Your task to perform on an android device: uninstall "Adobe Express: Graphic Design" Image 0: 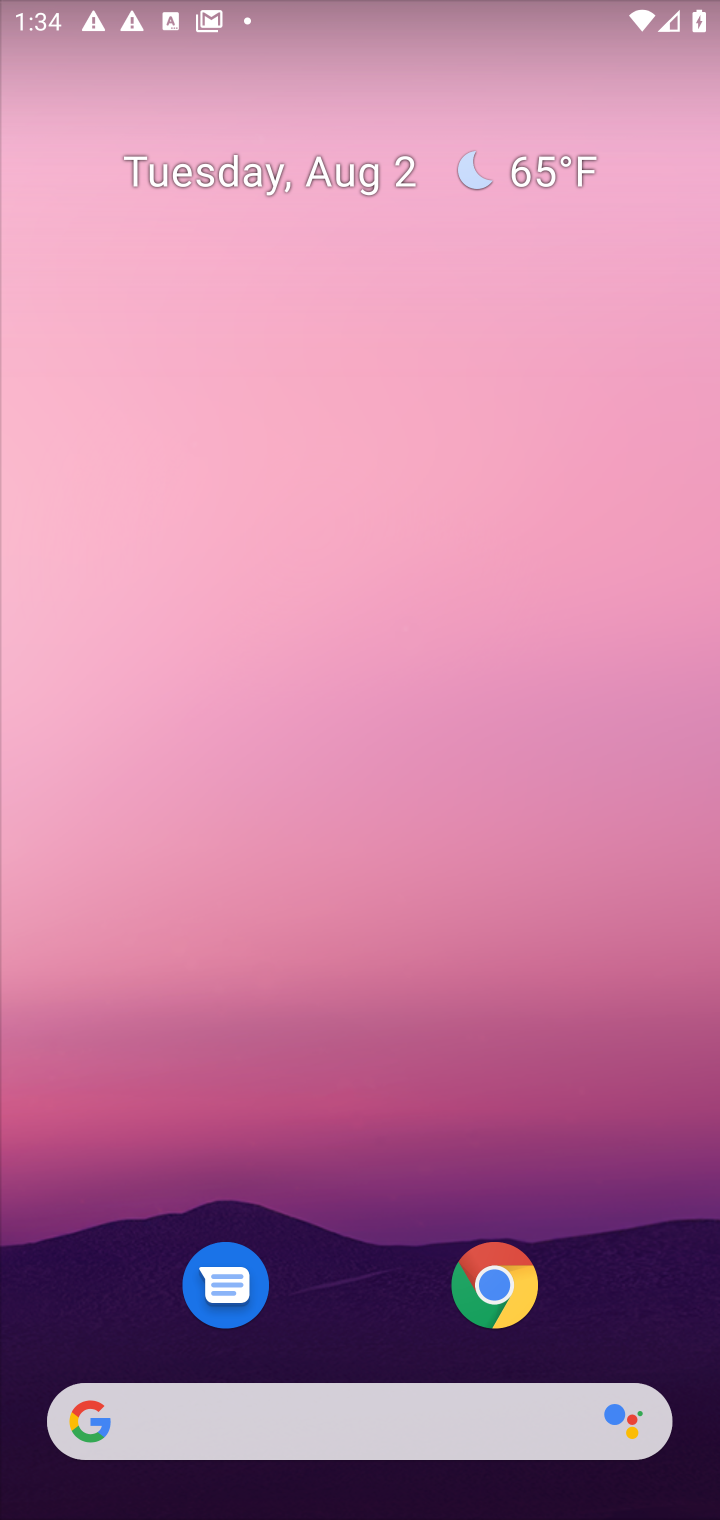
Step 0: drag from (670, 1168) to (687, 754)
Your task to perform on an android device: uninstall "Adobe Express: Graphic Design" Image 1: 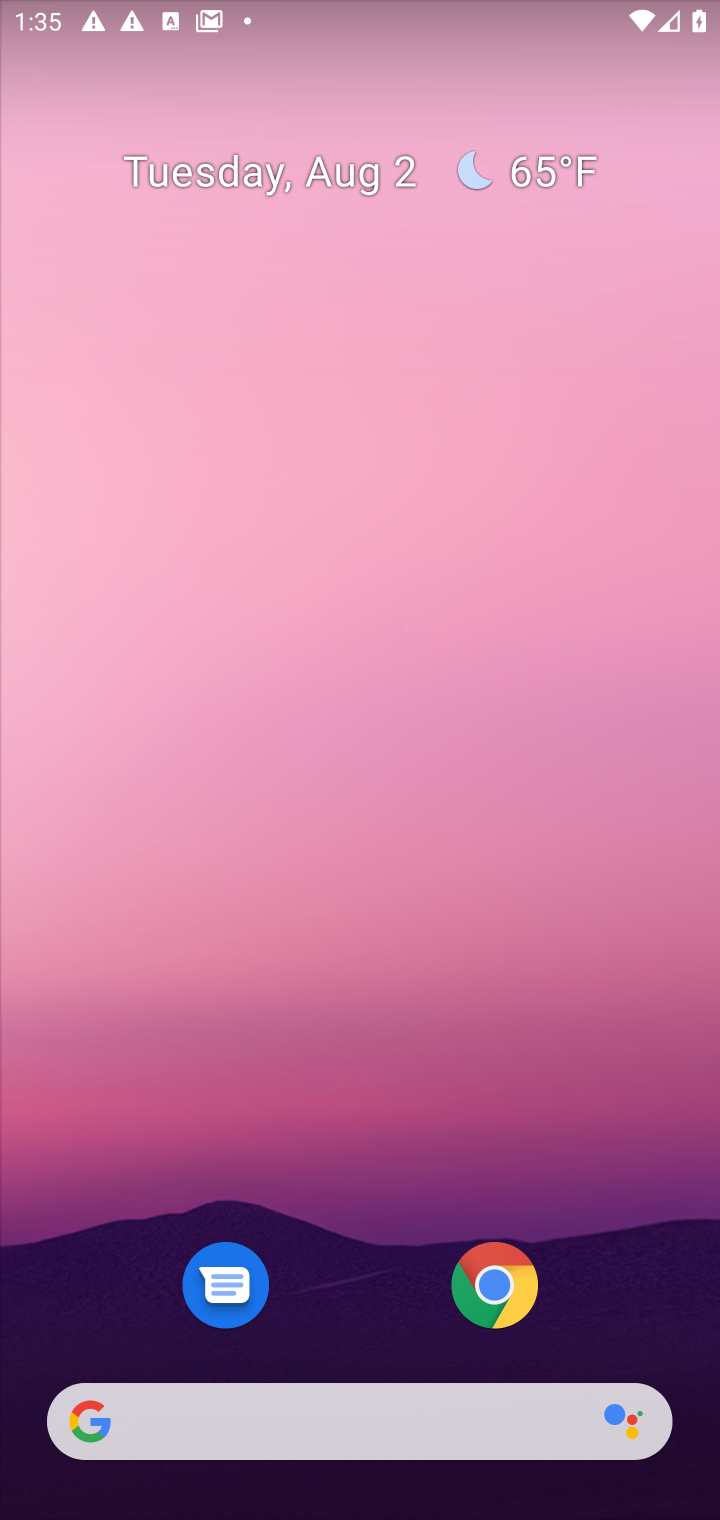
Step 1: drag from (650, 1108) to (709, 1)
Your task to perform on an android device: uninstall "Adobe Express: Graphic Design" Image 2: 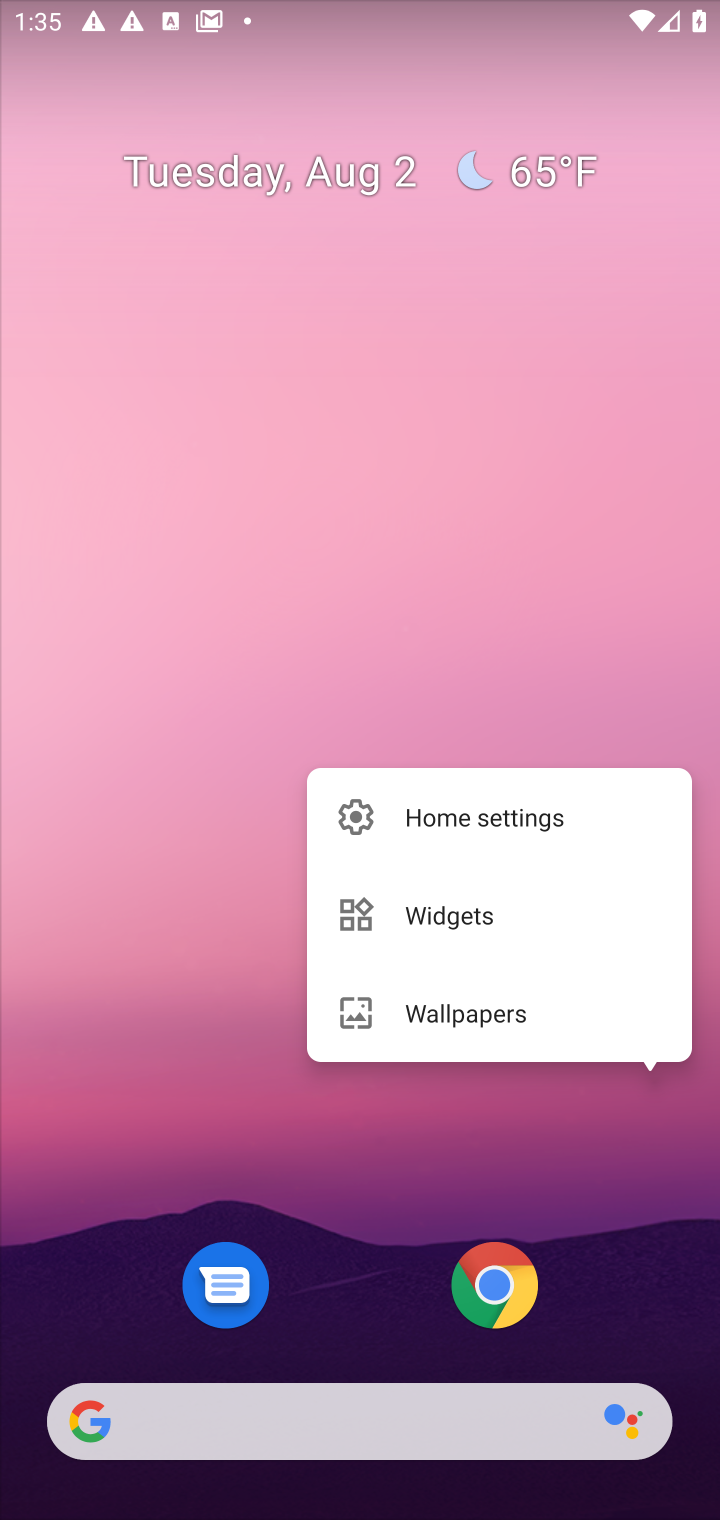
Step 2: click (277, 617)
Your task to perform on an android device: uninstall "Adobe Express: Graphic Design" Image 3: 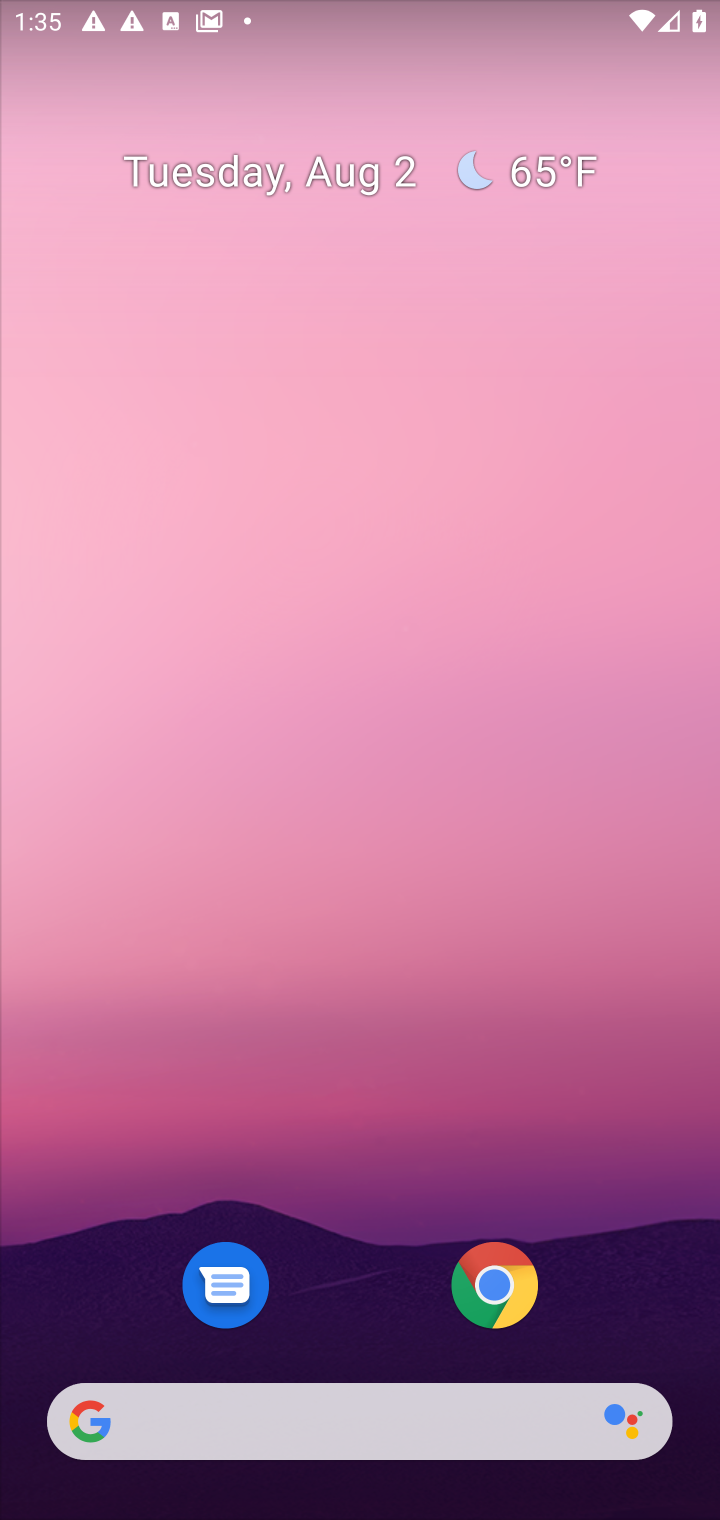
Step 3: drag from (605, 1222) to (477, 66)
Your task to perform on an android device: uninstall "Adobe Express: Graphic Design" Image 4: 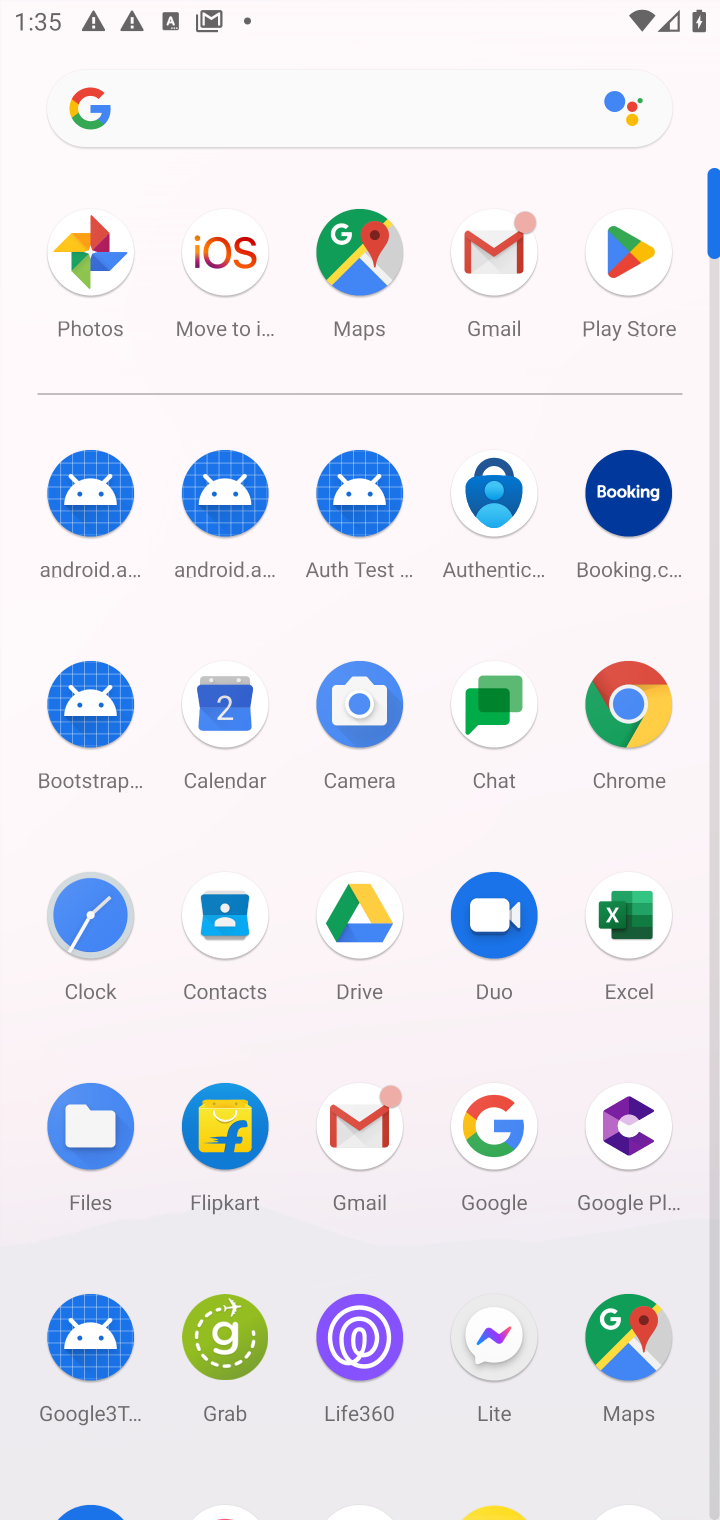
Step 4: drag from (434, 1217) to (441, 338)
Your task to perform on an android device: uninstall "Adobe Express: Graphic Design" Image 5: 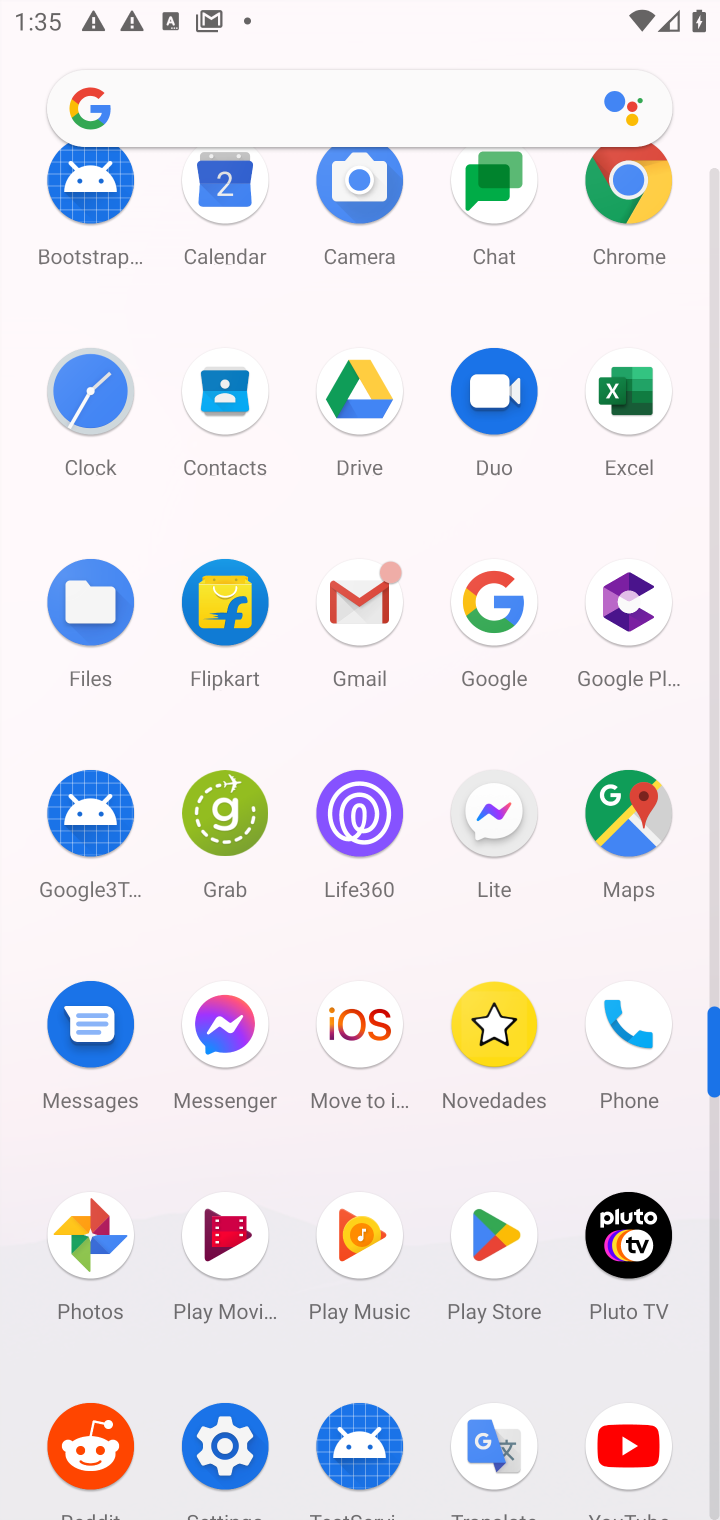
Step 5: click (486, 1237)
Your task to perform on an android device: uninstall "Adobe Express: Graphic Design" Image 6: 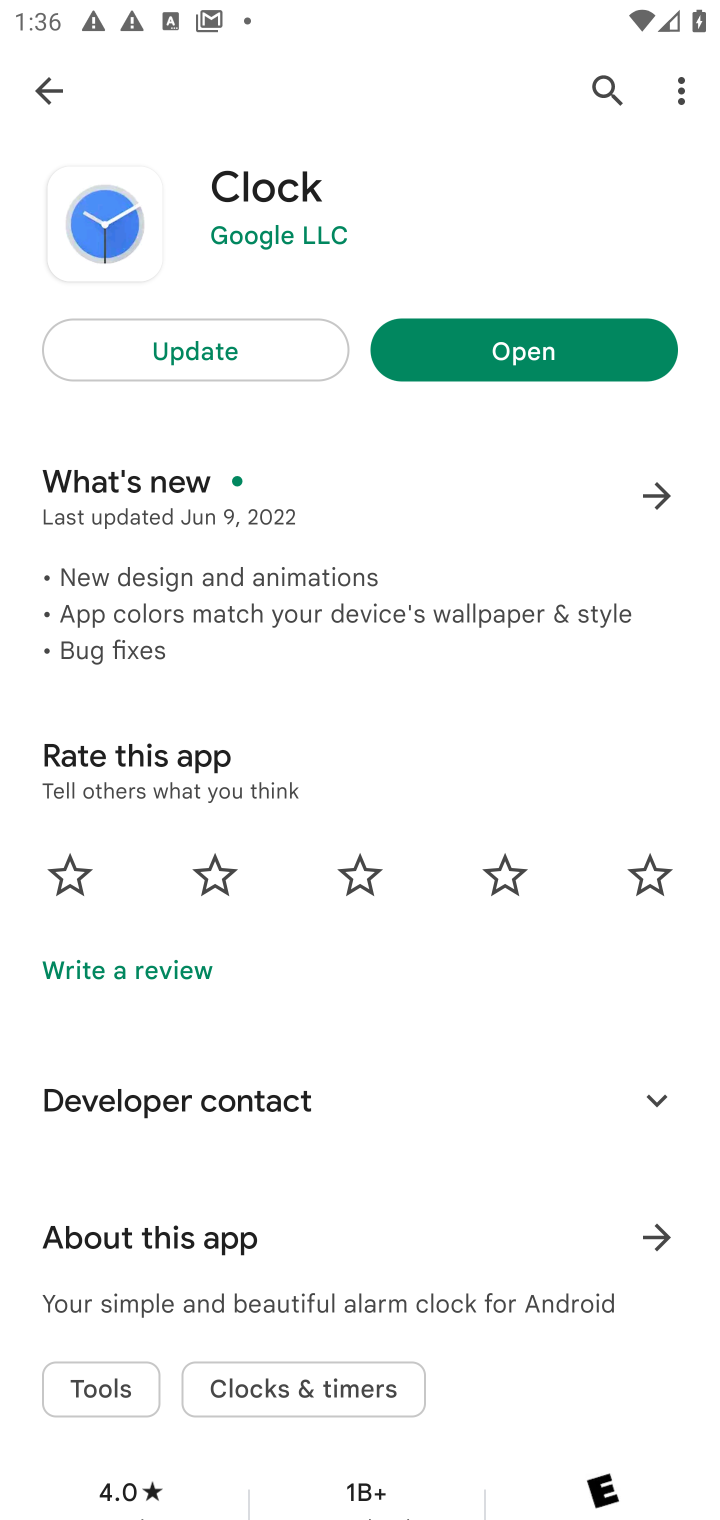
Step 6: click (609, 77)
Your task to perform on an android device: uninstall "Adobe Express: Graphic Design" Image 7: 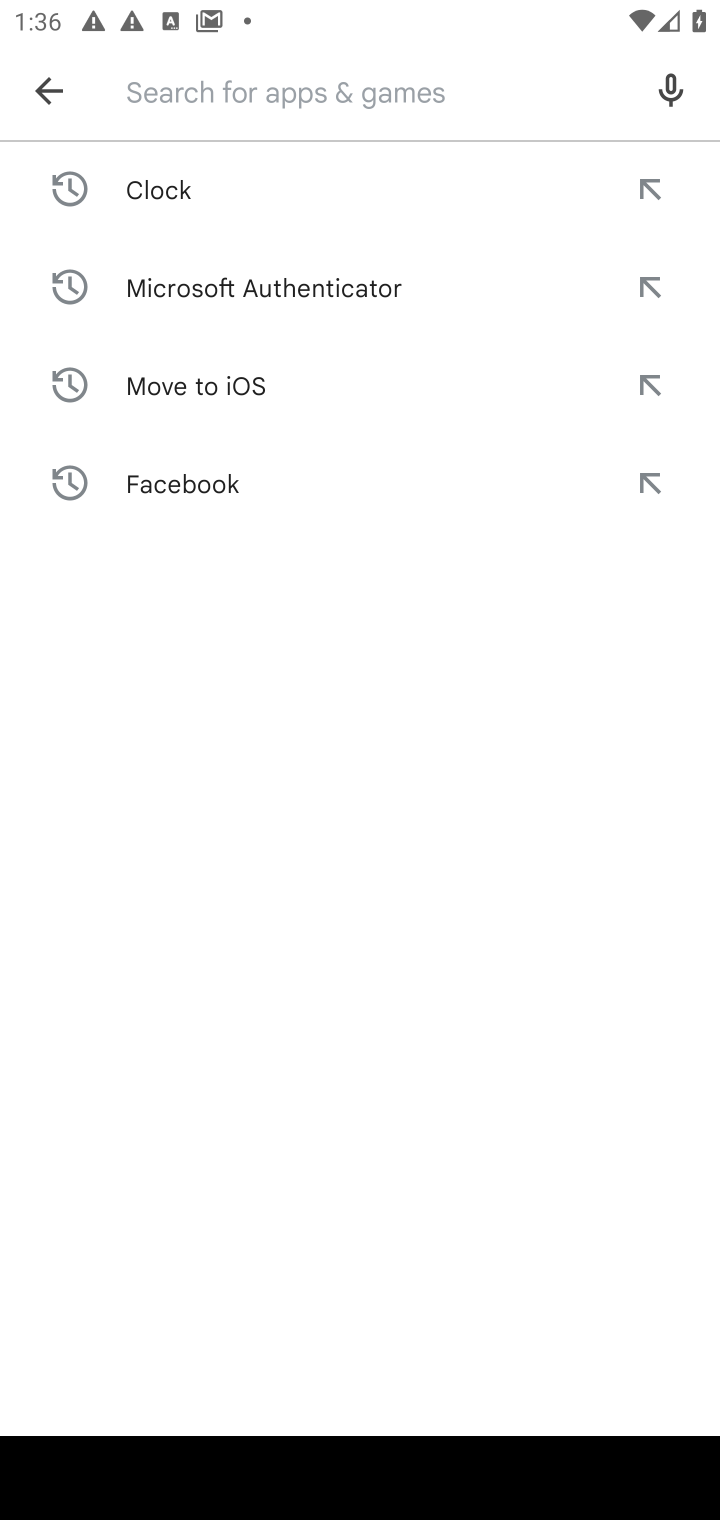
Step 7: type "Adobe Express: Graphic Design"
Your task to perform on an android device: uninstall "Adobe Express: Graphic Design" Image 8: 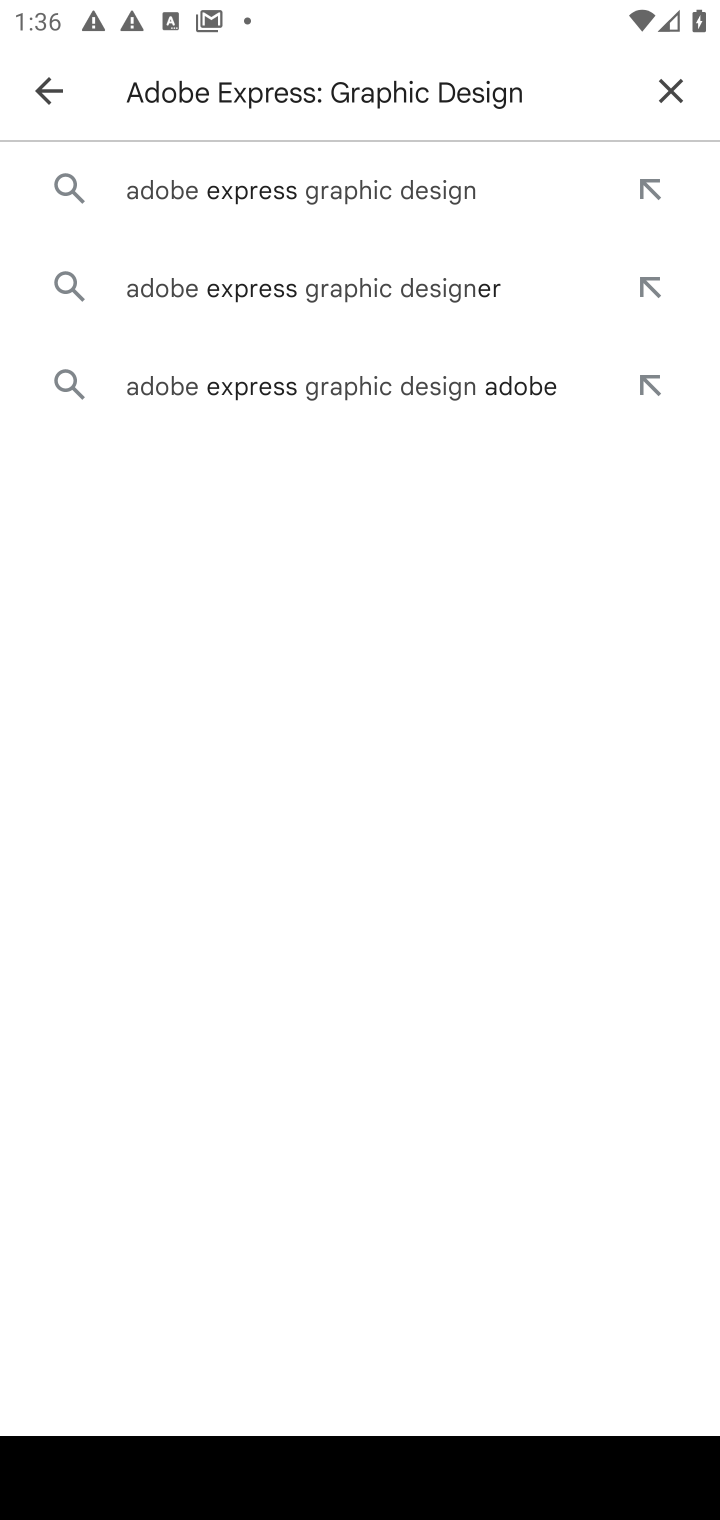
Step 8: press enter
Your task to perform on an android device: uninstall "Adobe Express: Graphic Design" Image 9: 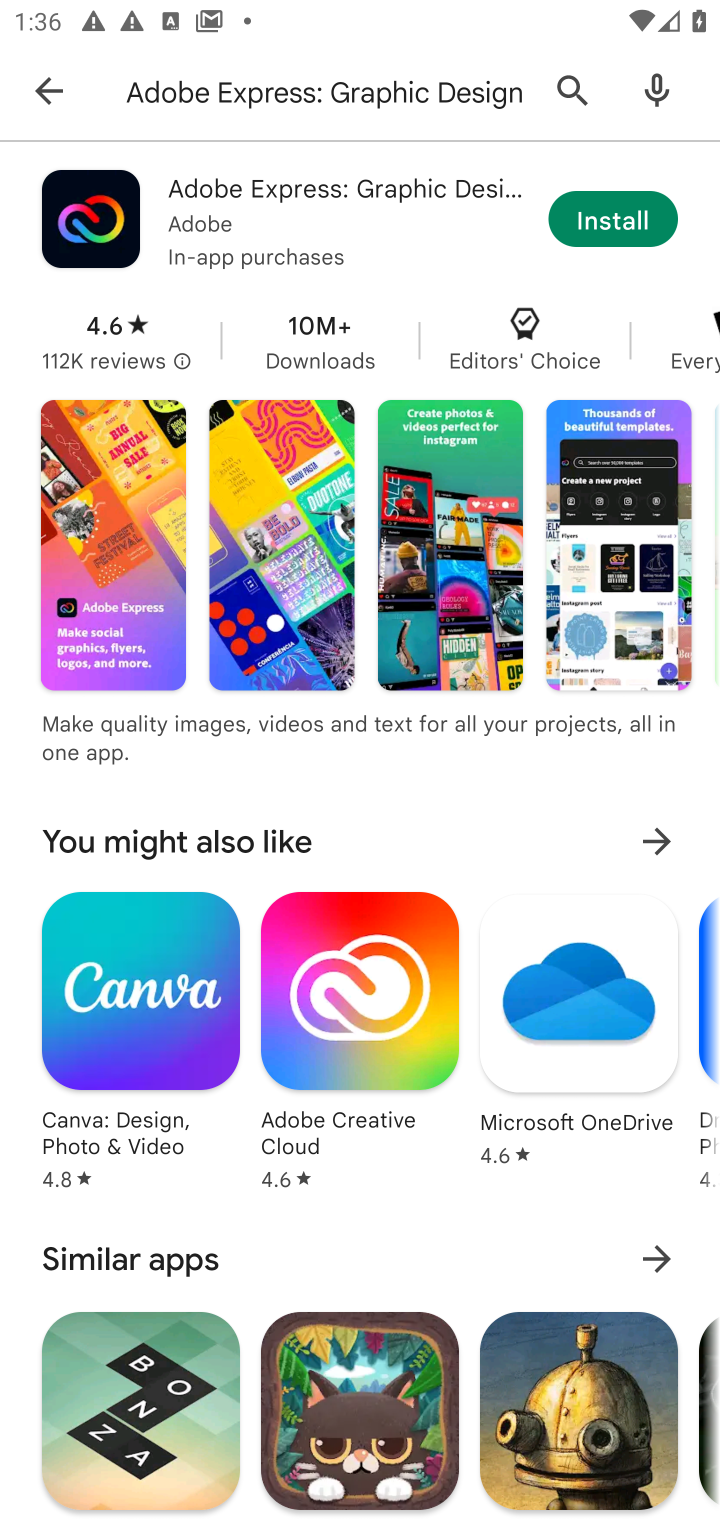
Step 9: task complete